Your task to perform on an android device: What's the weather? Image 0: 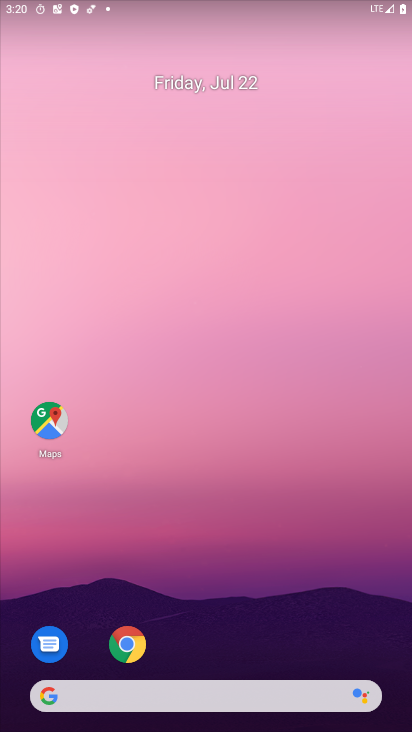
Step 0: press home button
Your task to perform on an android device: What's the weather? Image 1: 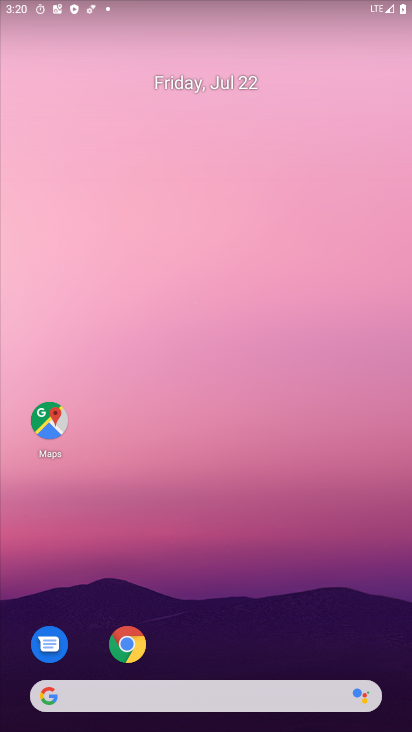
Step 1: click (45, 693)
Your task to perform on an android device: What's the weather? Image 2: 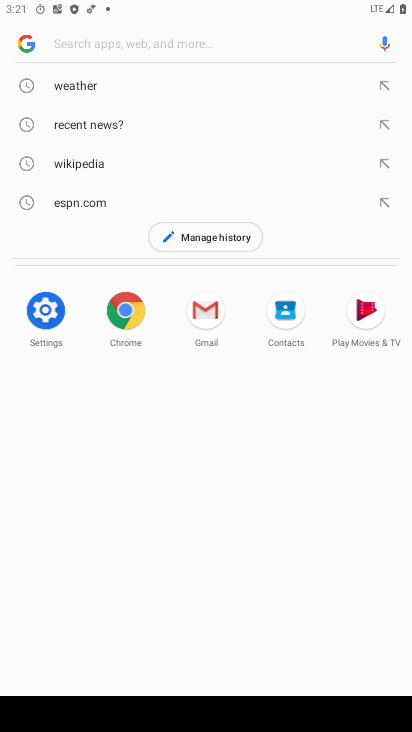
Step 2: click (65, 87)
Your task to perform on an android device: What's the weather? Image 3: 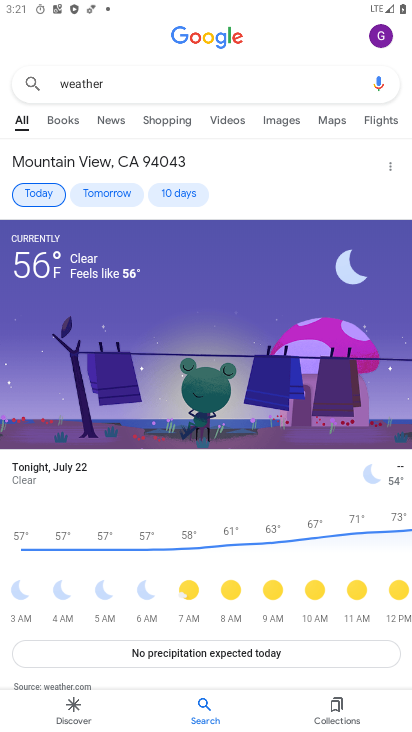
Step 3: task complete